Your task to perform on an android device: turn on airplane mode Image 0: 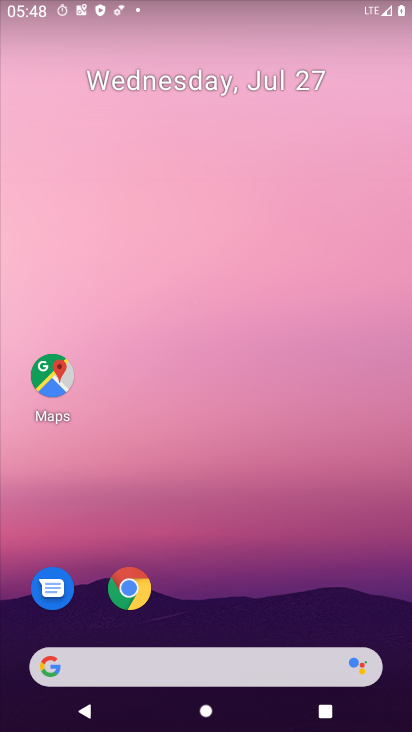
Step 0: drag from (323, 496) to (359, 7)
Your task to perform on an android device: turn on airplane mode Image 1: 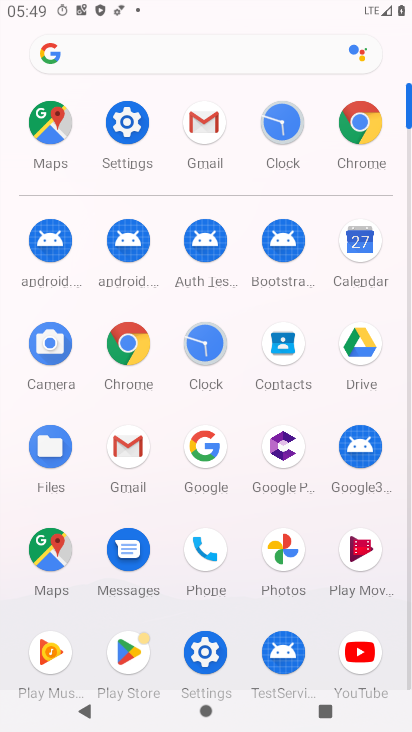
Step 1: click (135, 125)
Your task to perform on an android device: turn on airplane mode Image 2: 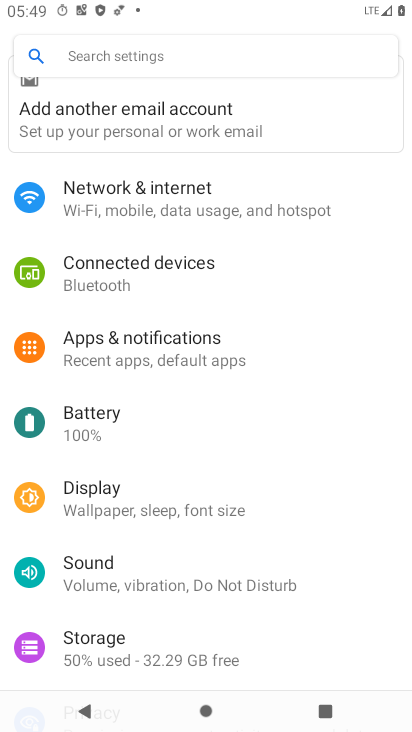
Step 2: click (101, 195)
Your task to perform on an android device: turn on airplane mode Image 3: 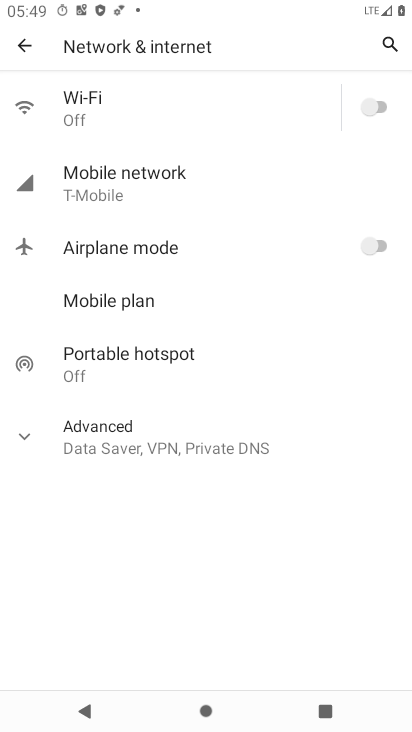
Step 3: click (386, 250)
Your task to perform on an android device: turn on airplane mode Image 4: 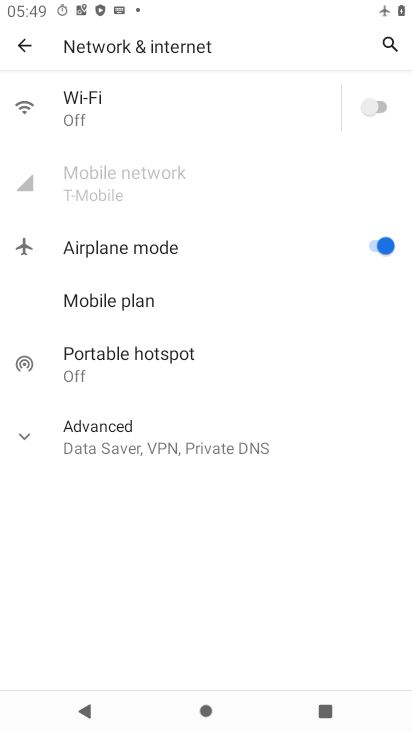
Step 4: task complete